Your task to perform on an android device: What's on my calendar today? Image 0: 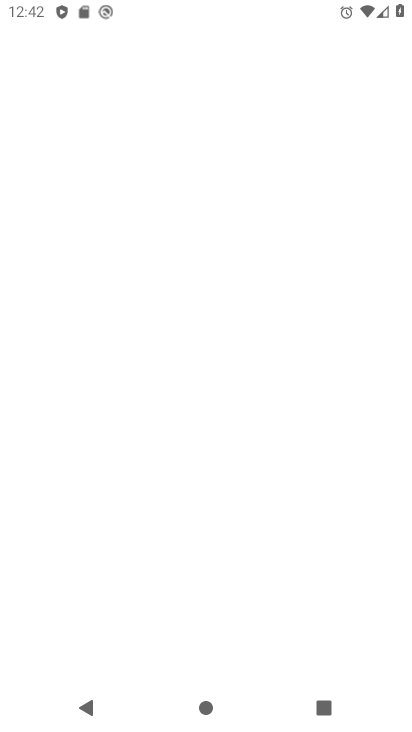
Step 0: click (124, 593)
Your task to perform on an android device: What's on my calendar today? Image 1: 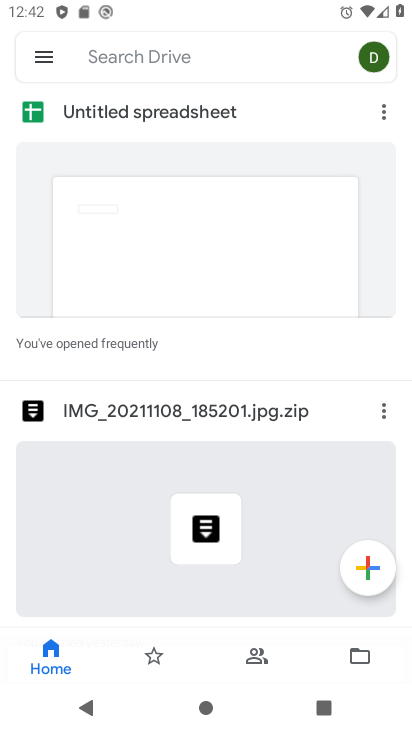
Step 1: press home button
Your task to perform on an android device: What's on my calendar today? Image 2: 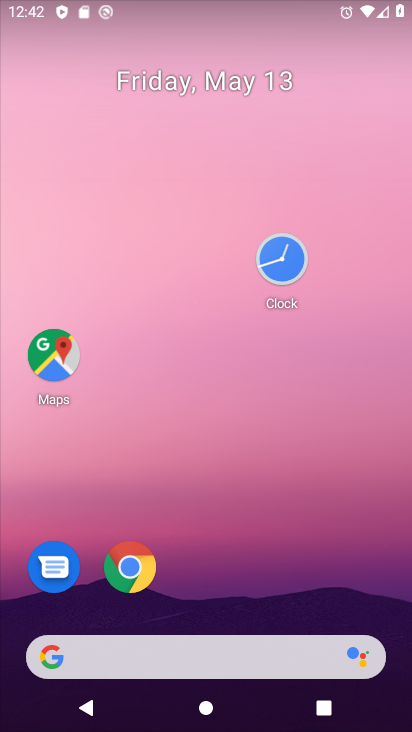
Step 2: click (115, 564)
Your task to perform on an android device: What's on my calendar today? Image 3: 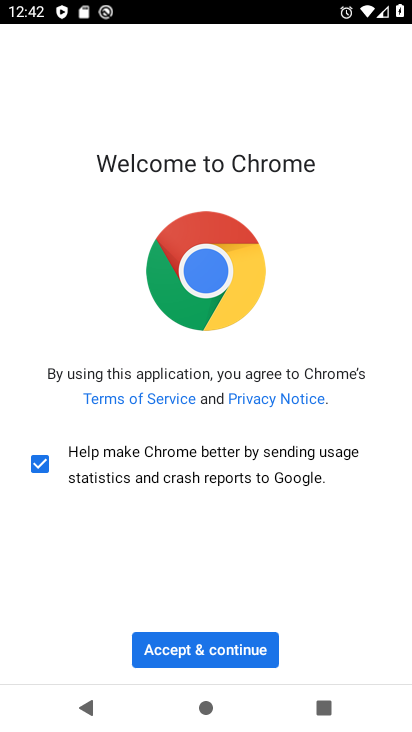
Step 3: press home button
Your task to perform on an android device: What's on my calendar today? Image 4: 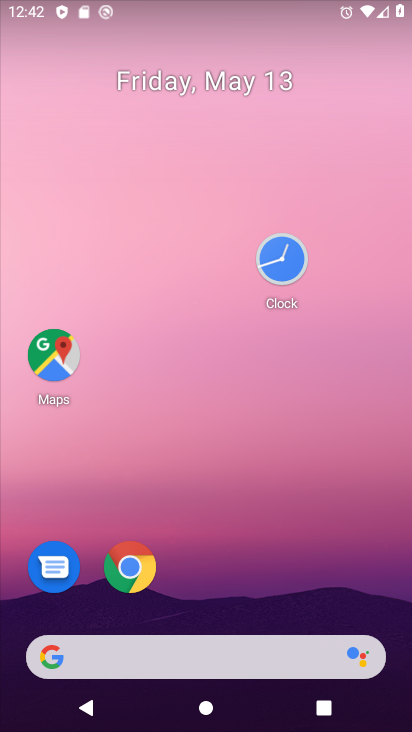
Step 4: drag from (305, 558) to (166, 136)
Your task to perform on an android device: What's on my calendar today? Image 5: 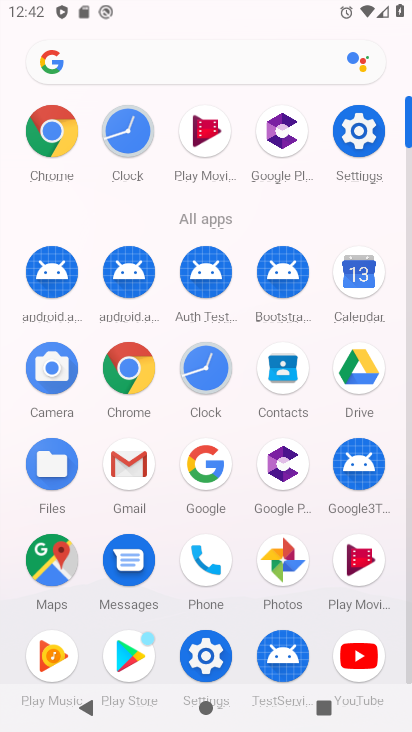
Step 5: click (369, 304)
Your task to perform on an android device: What's on my calendar today? Image 6: 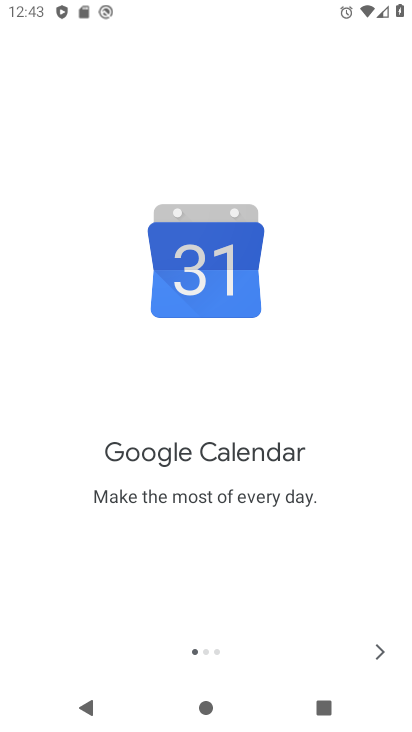
Step 6: click (382, 643)
Your task to perform on an android device: What's on my calendar today? Image 7: 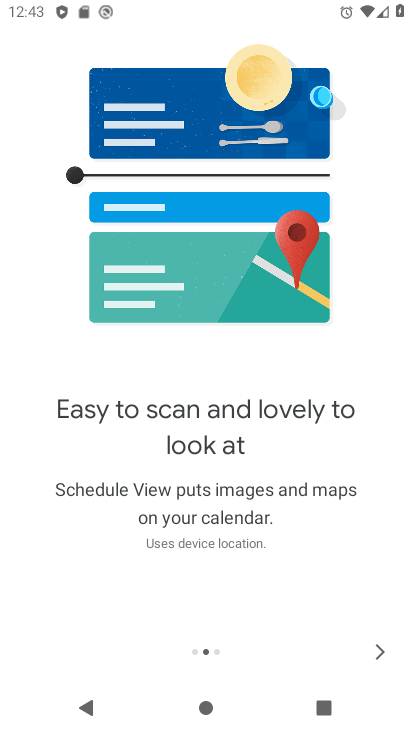
Step 7: click (374, 658)
Your task to perform on an android device: What's on my calendar today? Image 8: 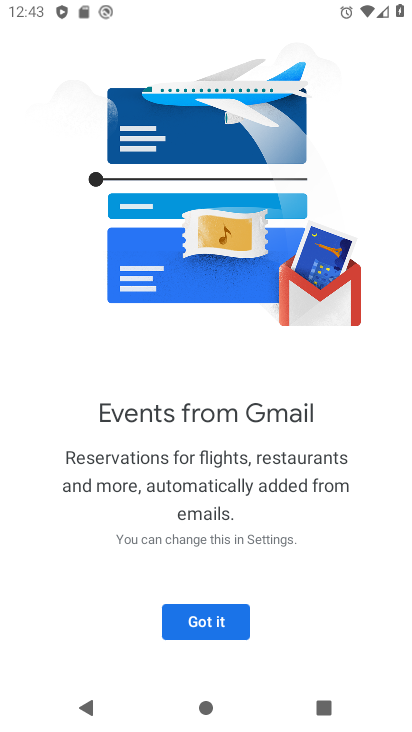
Step 8: click (177, 623)
Your task to perform on an android device: What's on my calendar today? Image 9: 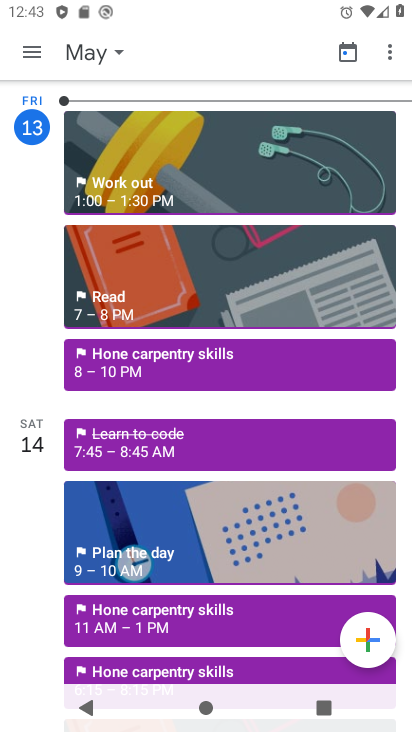
Step 9: click (39, 434)
Your task to perform on an android device: What's on my calendar today? Image 10: 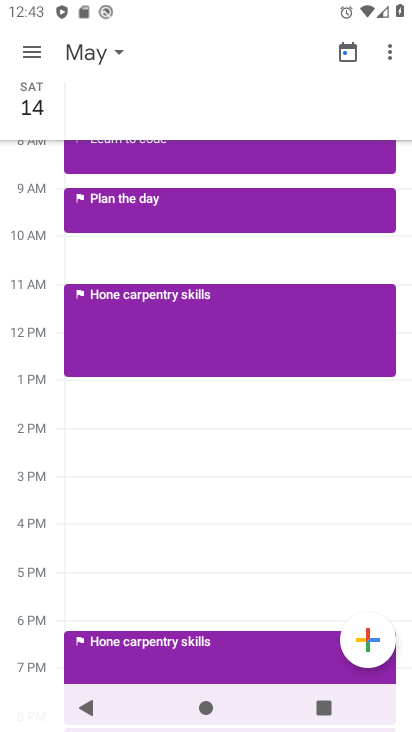
Step 10: task complete